Your task to perform on an android device: check battery use Image 0: 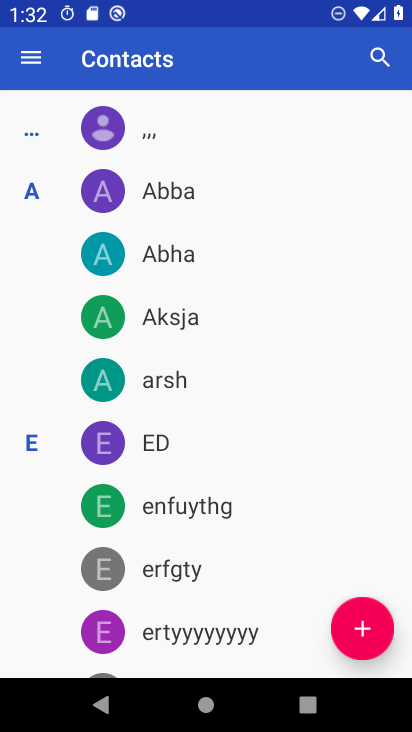
Step 0: press home button
Your task to perform on an android device: check battery use Image 1: 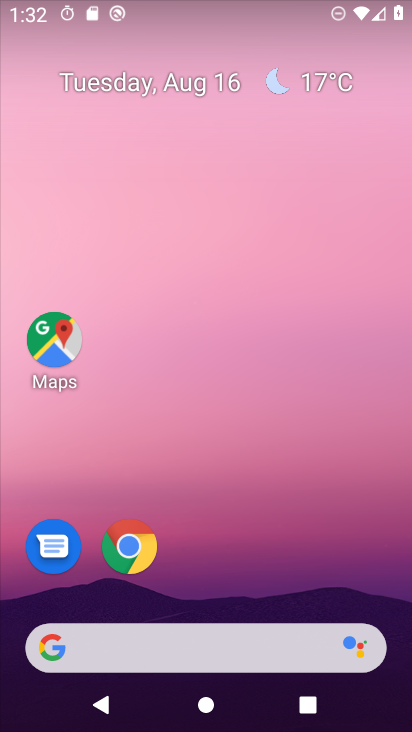
Step 1: drag from (218, 610) to (197, 28)
Your task to perform on an android device: check battery use Image 2: 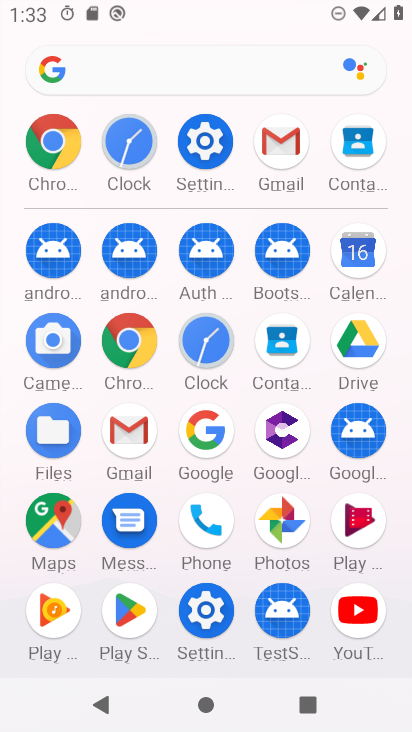
Step 2: click (208, 147)
Your task to perform on an android device: check battery use Image 3: 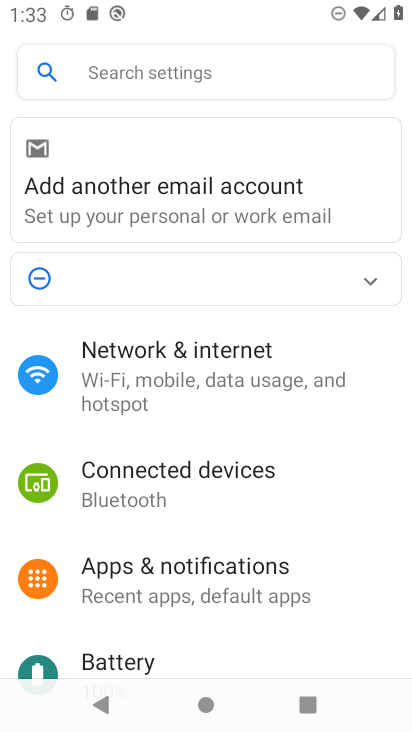
Step 3: click (109, 653)
Your task to perform on an android device: check battery use Image 4: 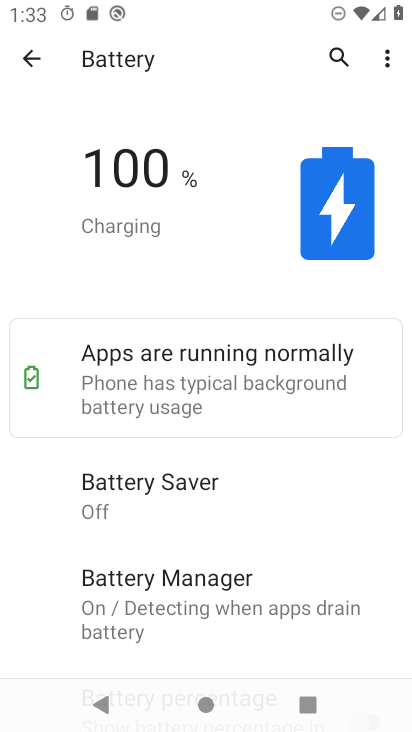
Step 4: click (388, 56)
Your task to perform on an android device: check battery use Image 5: 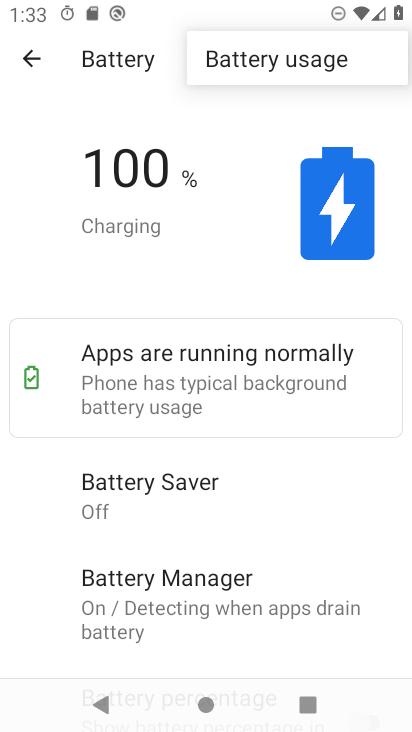
Step 5: click (271, 67)
Your task to perform on an android device: check battery use Image 6: 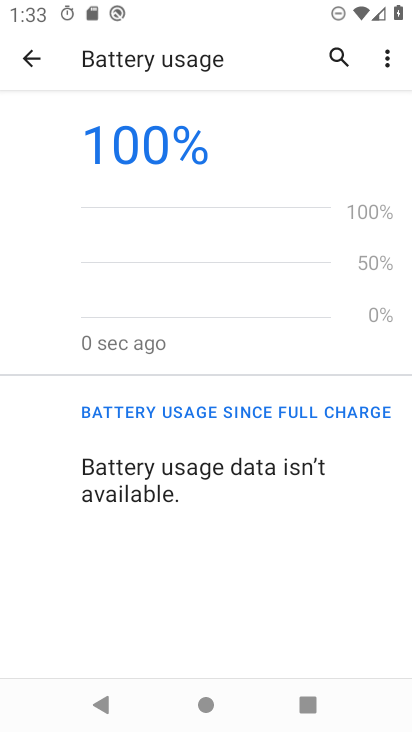
Step 6: task complete